Your task to perform on an android device: change the clock display to digital Image 0: 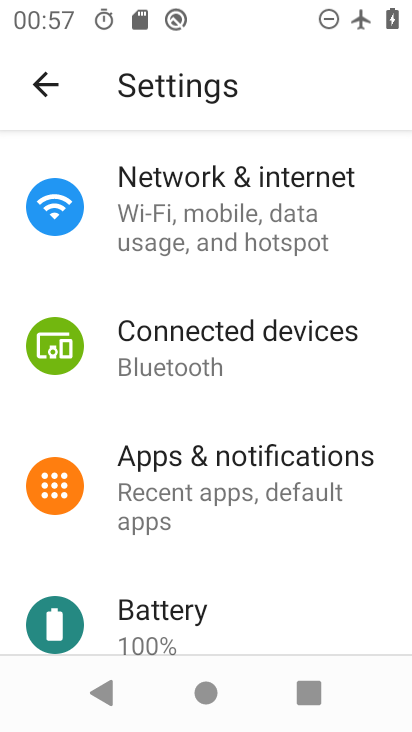
Step 0: press home button
Your task to perform on an android device: change the clock display to digital Image 1: 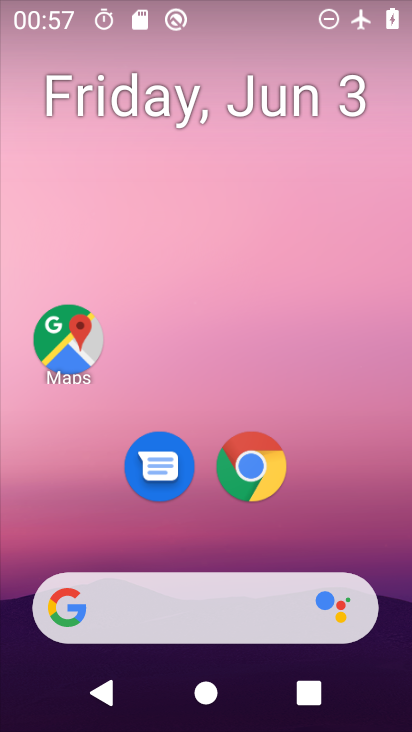
Step 1: drag from (193, 541) to (197, 202)
Your task to perform on an android device: change the clock display to digital Image 2: 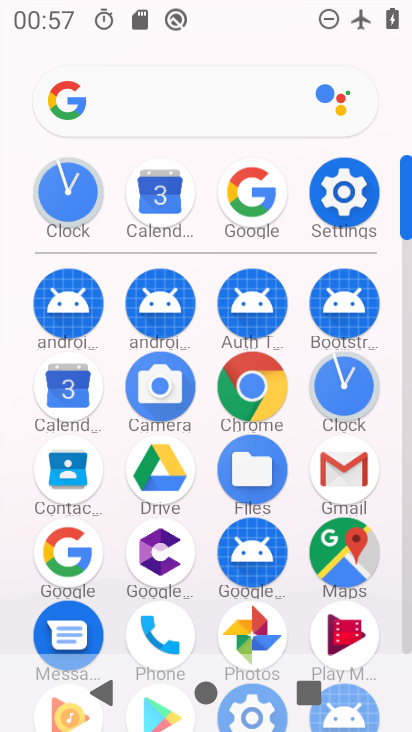
Step 2: click (344, 409)
Your task to perform on an android device: change the clock display to digital Image 3: 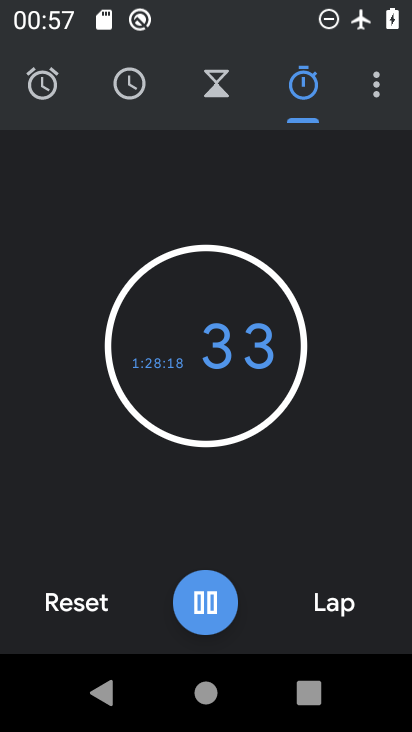
Step 3: click (370, 79)
Your task to perform on an android device: change the clock display to digital Image 4: 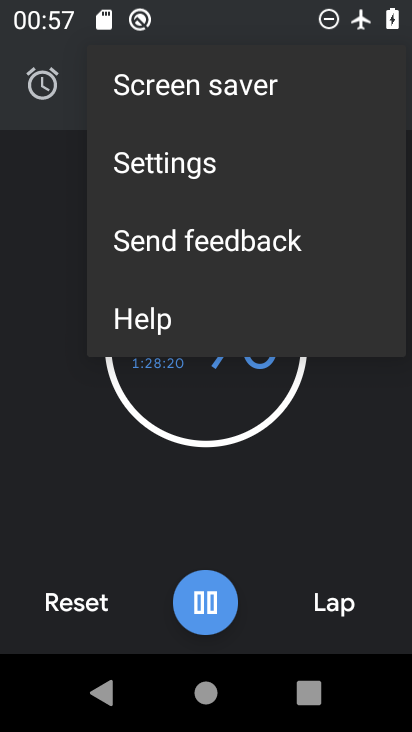
Step 4: click (198, 155)
Your task to perform on an android device: change the clock display to digital Image 5: 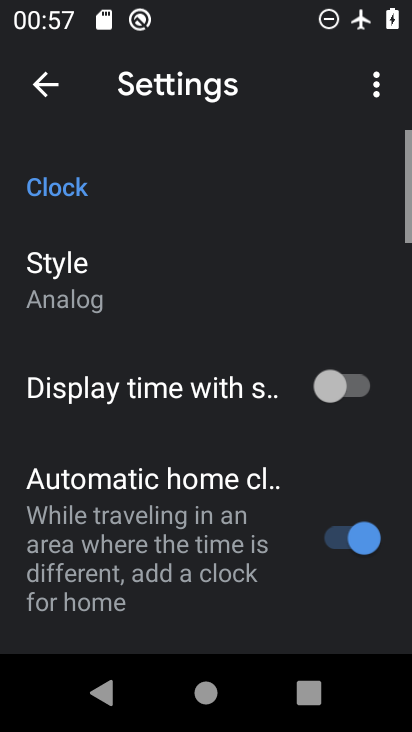
Step 5: click (118, 269)
Your task to perform on an android device: change the clock display to digital Image 6: 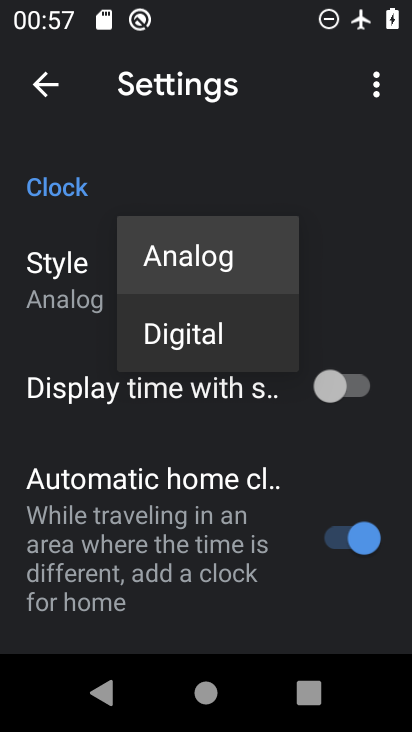
Step 6: click (174, 314)
Your task to perform on an android device: change the clock display to digital Image 7: 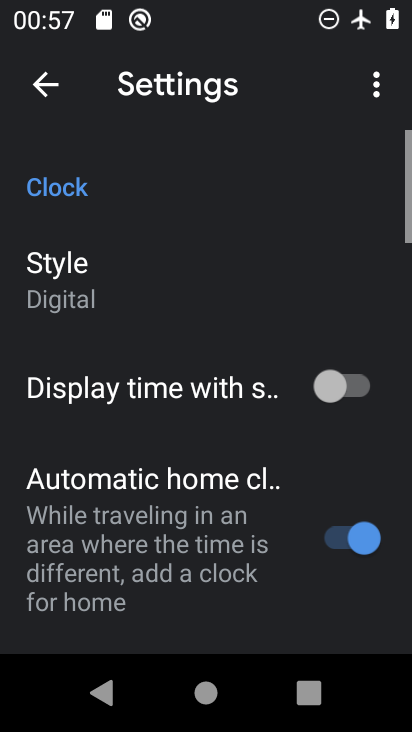
Step 7: task complete